Your task to perform on an android device: How do I get to the nearest JCPenney? Image 0: 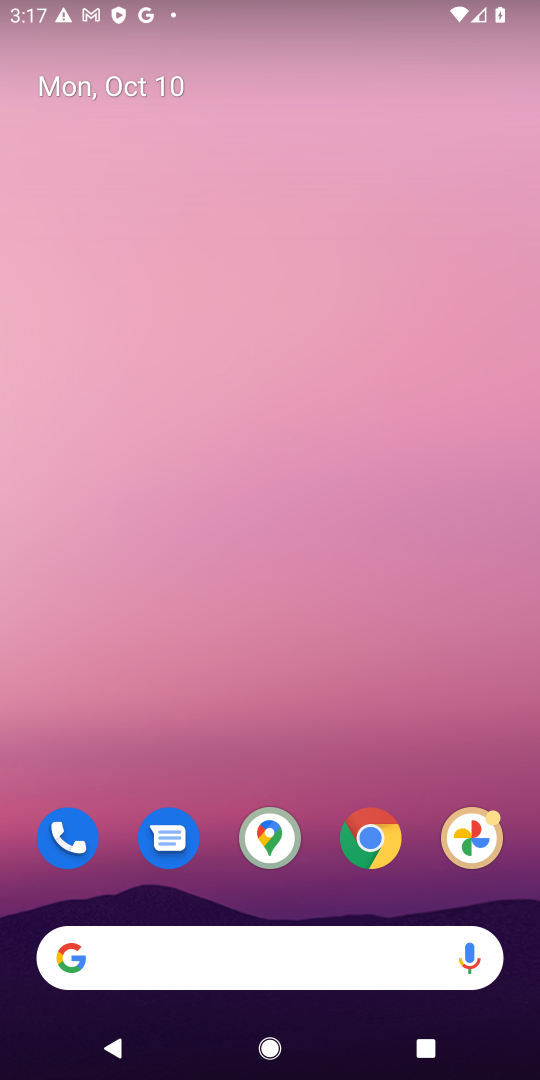
Step 0: click (369, 848)
Your task to perform on an android device: How do I get to the nearest JCPenney? Image 1: 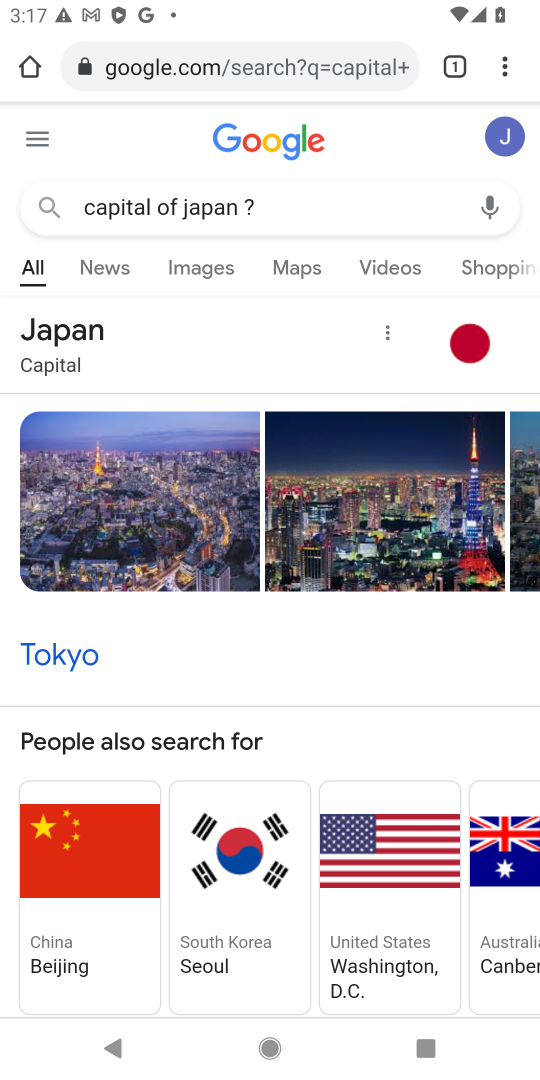
Step 1: click (178, 69)
Your task to perform on an android device: How do I get to the nearest JCPenney? Image 2: 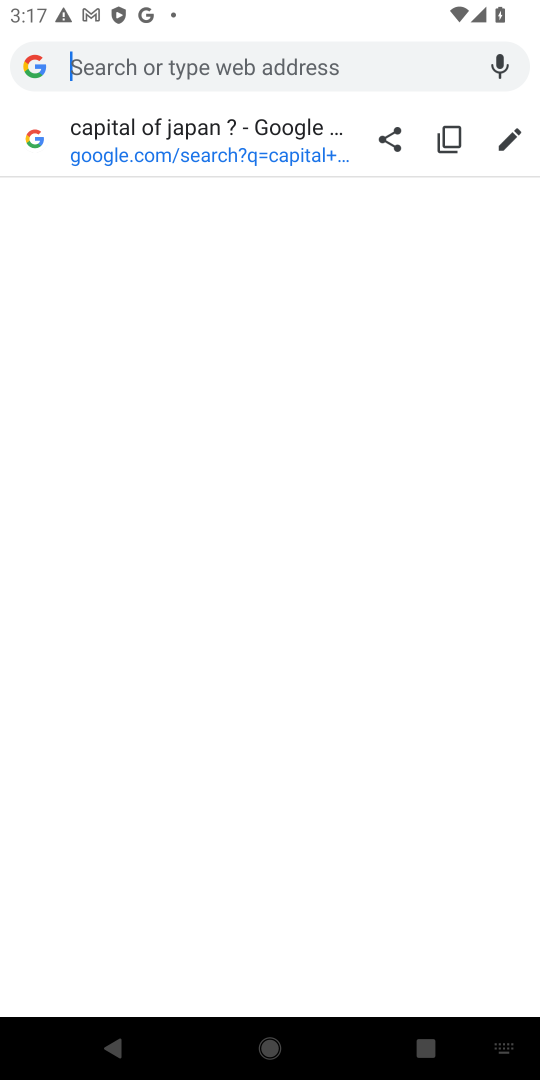
Step 2: type "How do I get to the nearest JCPenney?"
Your task to perform on an android device: How do I get to the nearest JCPenney? Image 3: 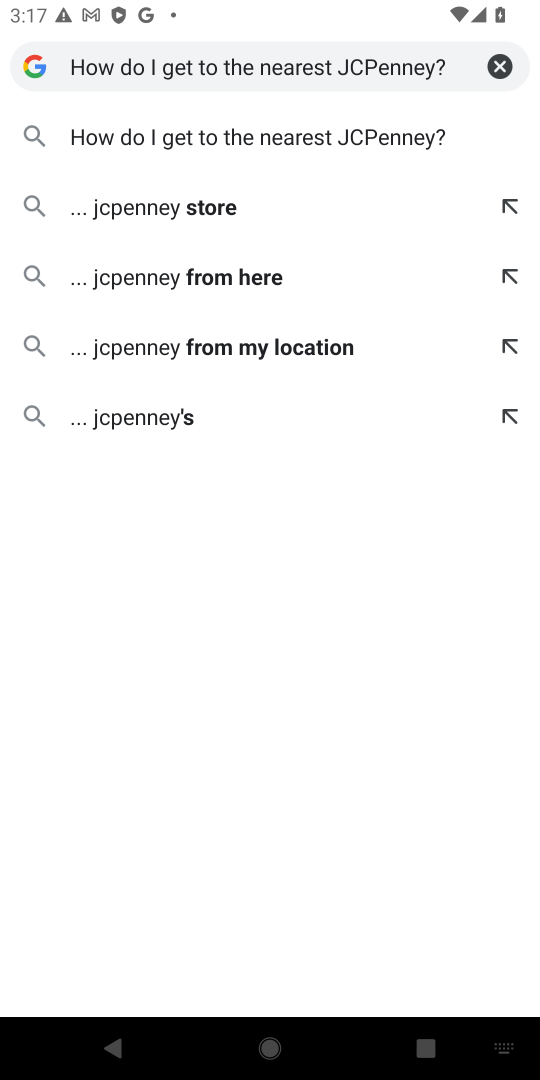
Step 3: click (282, 147)
Your task to perform on an android device: How do I get to the nearest JCPenney? Image 4: 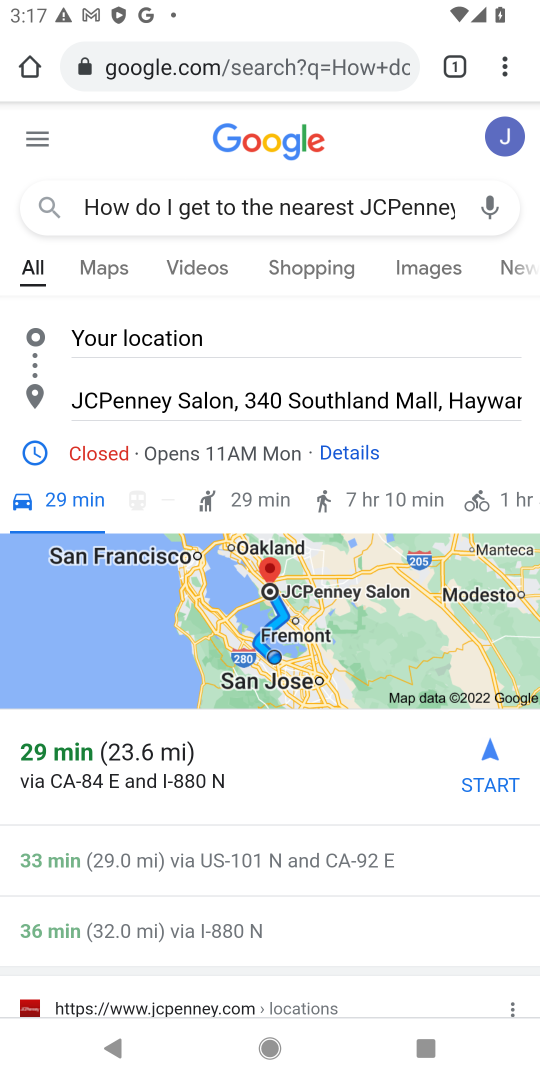
Step 4: task complete